Your task to perform on an android device: turn off sleep mode Image 0: 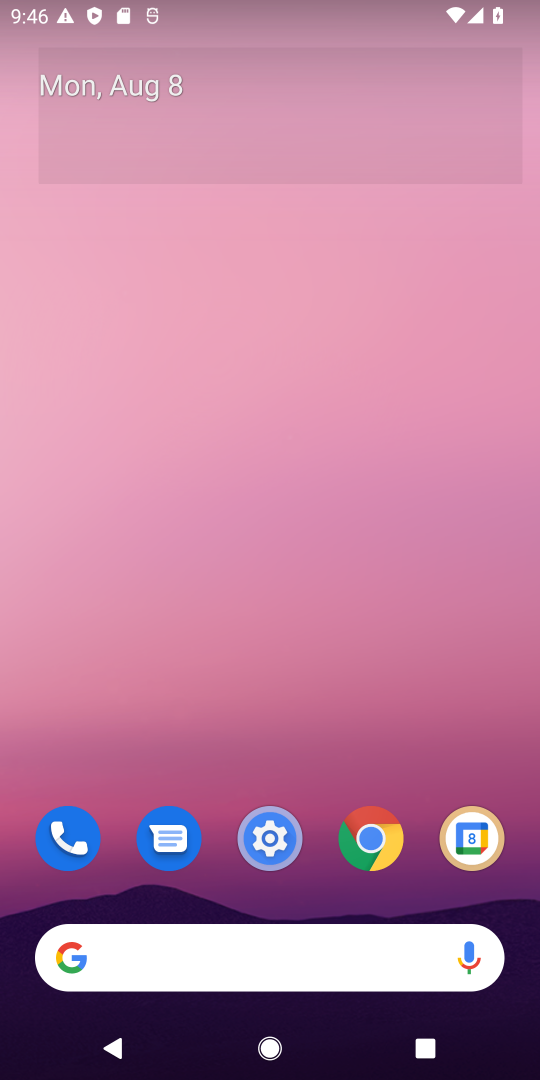
Step 0: press home button
Your task to perform on an android device: turn off sleep mode Image 1: 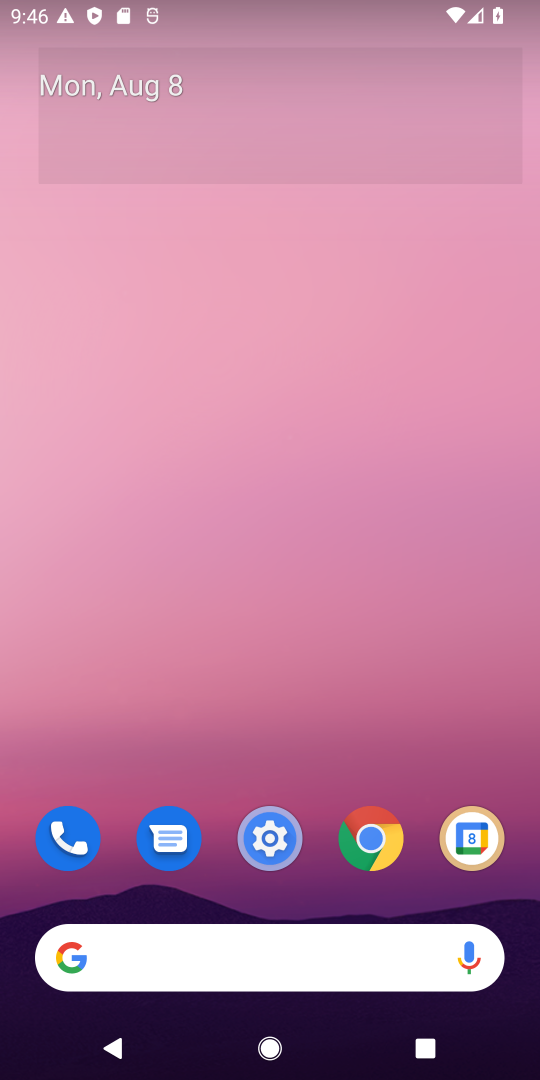
Step 1: click (276, 832)
Your task to perform on an android device: turn off sleep mode Image 2: 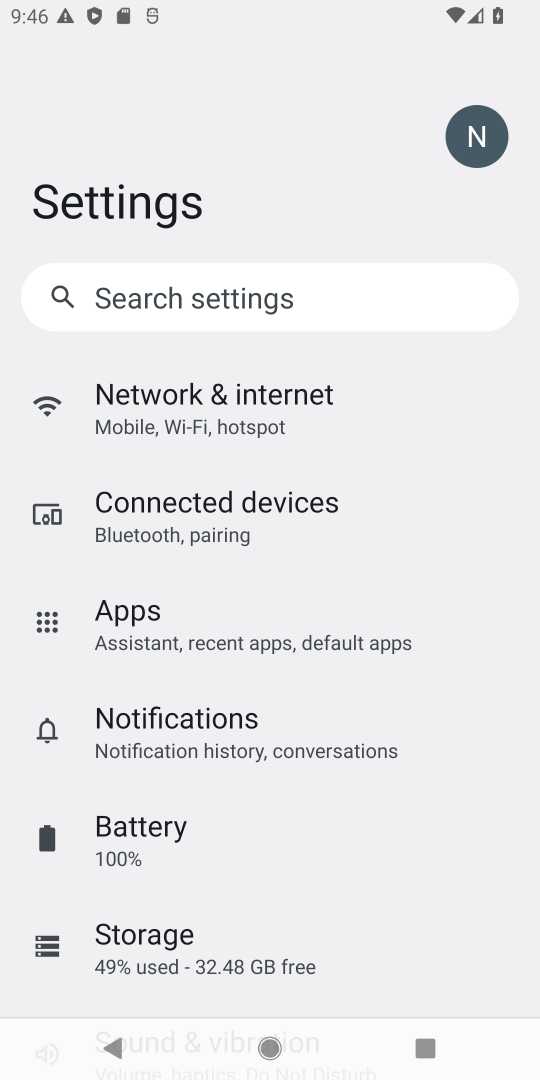
Step 2: drag from (377, 861) to (307, 417)
Your task to perform on an android device: turn off sleep mode Image 3: 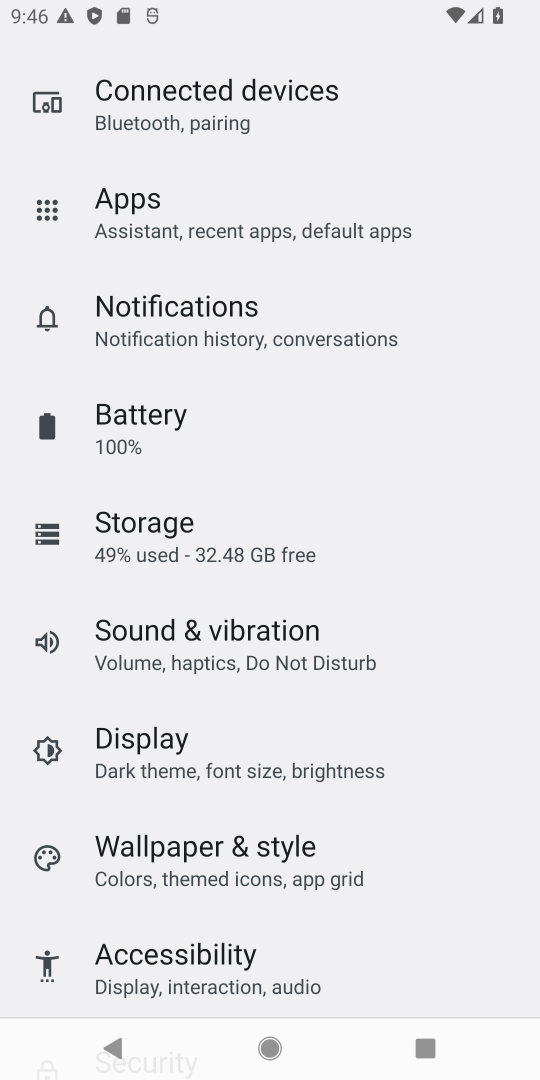
Step 3: click (94, 751)
Your task to perform on an android device: turn off sleep mode Image 4: 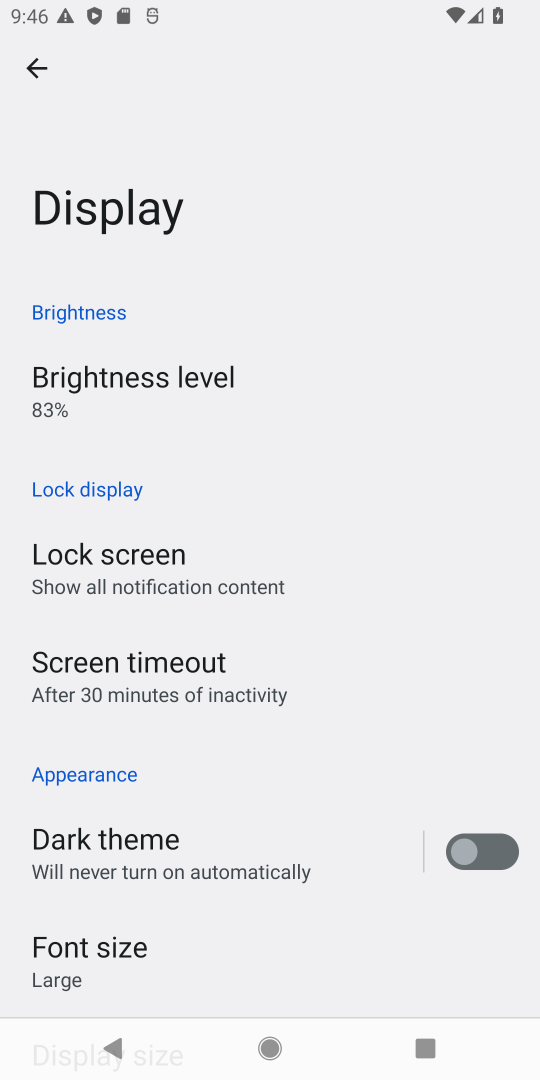
Step 4: task complete